Your task to perform on an android device: Turn on the flashlight Image 0: 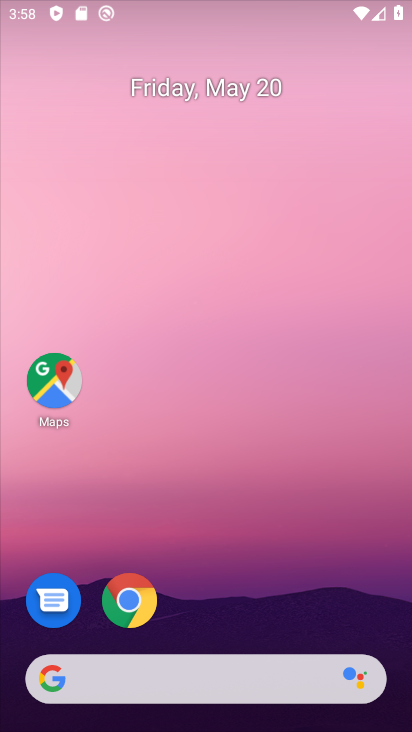
Step 0: click (118, 604)
Your task to perform on an android device: Turn on the flashlight Image 1: 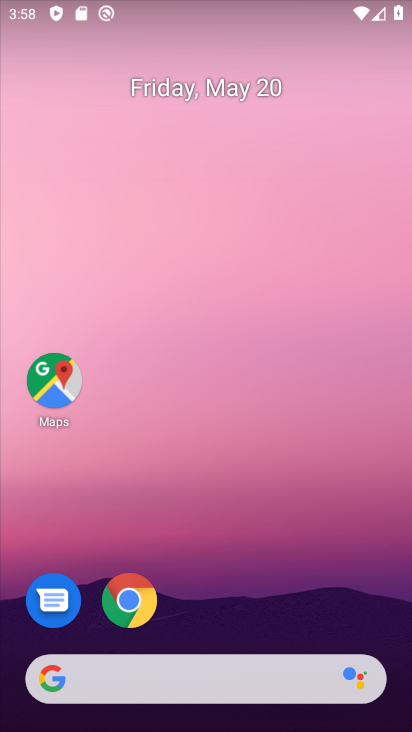
Step 1: drag from (257, 598) to (298, 59)
Your task to perform on an android device: Turn on the flashlight Image 2: 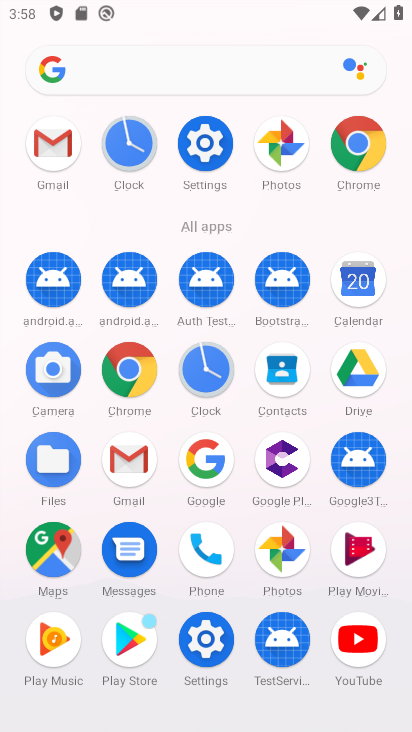
Step 2: click (208, 135)
Your task to perform on an android device: Turn on the flashlight Image 3: 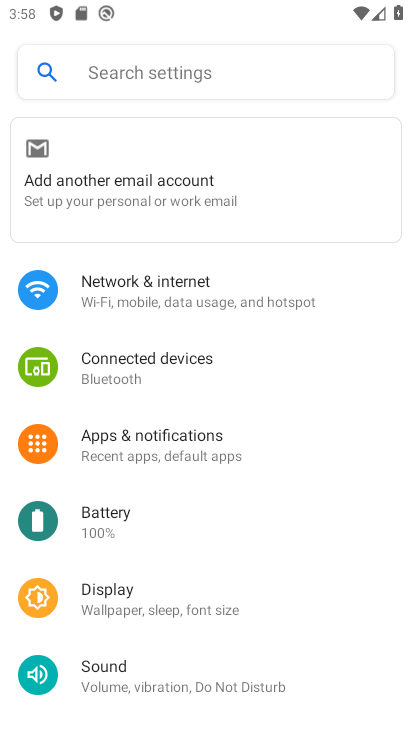
Step 3: click (165, 71)
Your task to perform on an android device: Turn on the flashlight Image 4: 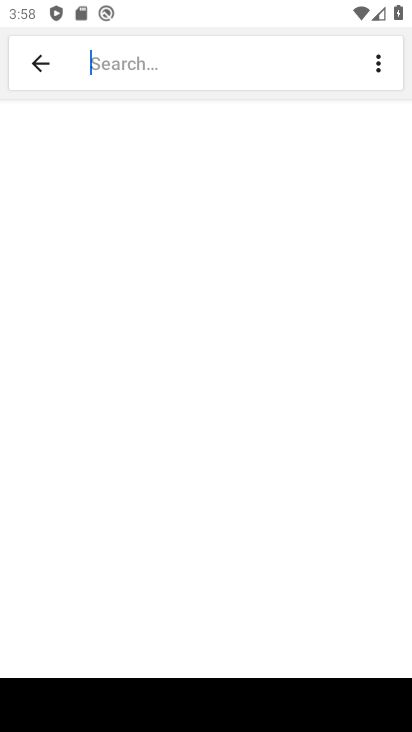
Step 4: type "flashlight"
Your task to perform on an android device: Turn on the flashlight Image 5: 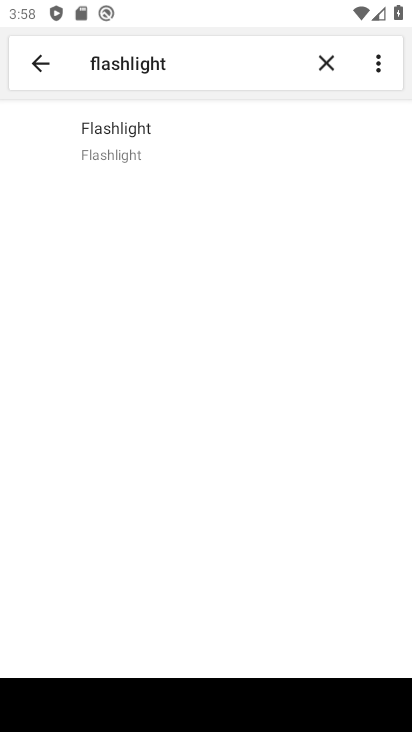
Step 5: click (67, 149)
Your task to perform on an android device: Turn on the flashlight Image 6: 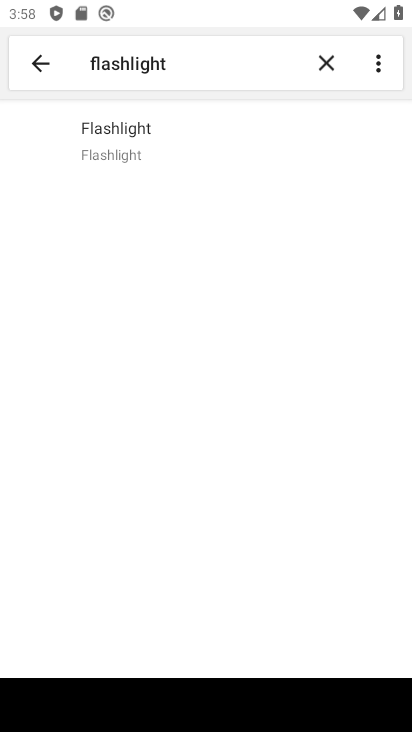
Step 6: task complete